Your task to perform on an android device: turn on improve location accuracy Image 0: 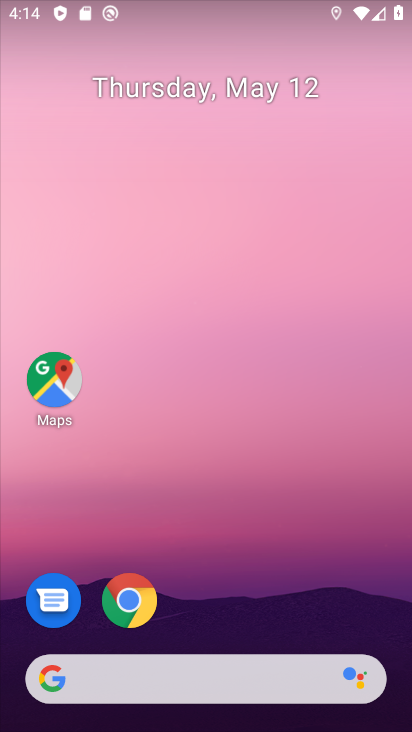
Step 0: drag from (212, 630) to (258, 176)
Your task to perform on an android device: turn on improve location accuracy Image 1: 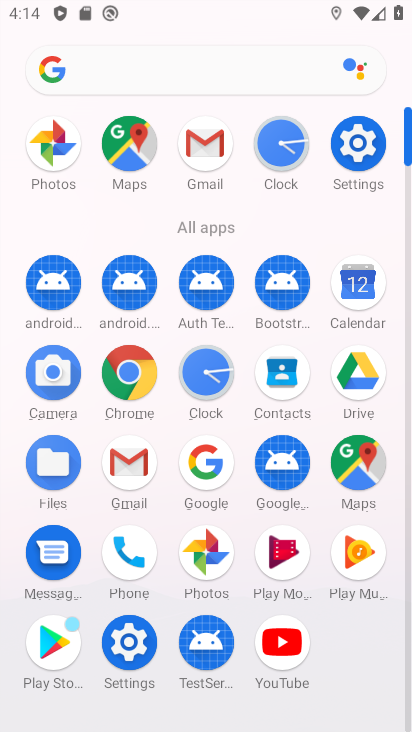
Step 1: click (355, 157)
Your task to perform on an android device: turn on improve location accuracy Image 2: 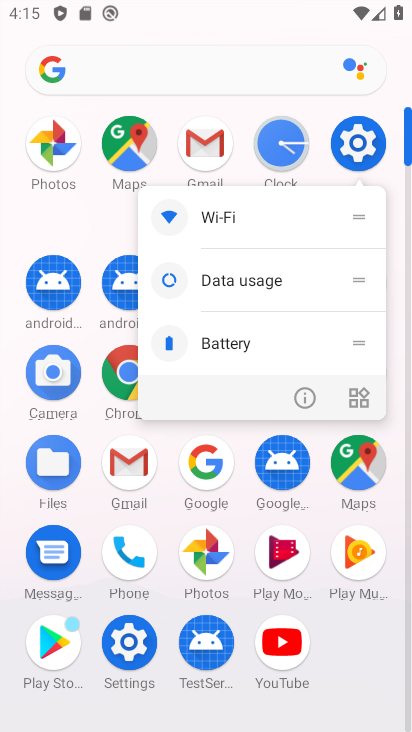
Step 2: click (301, 402)
Your task to perform on an android device: turn on improve location accuracy Image 3: 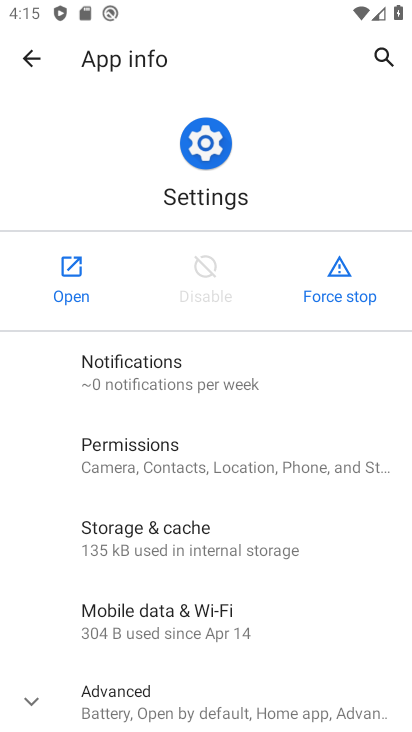
Step 3: click (74, 288)
Your task to perform on an android device: turn on improve location accuracy Image 4: 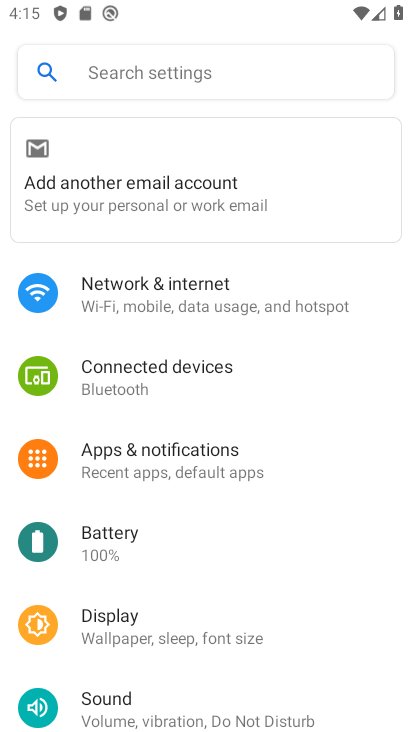
Step 4: drag from (199, 622) to (276, 139)
Your task to perform on an android device: turn on improve location accuracy Image 5: 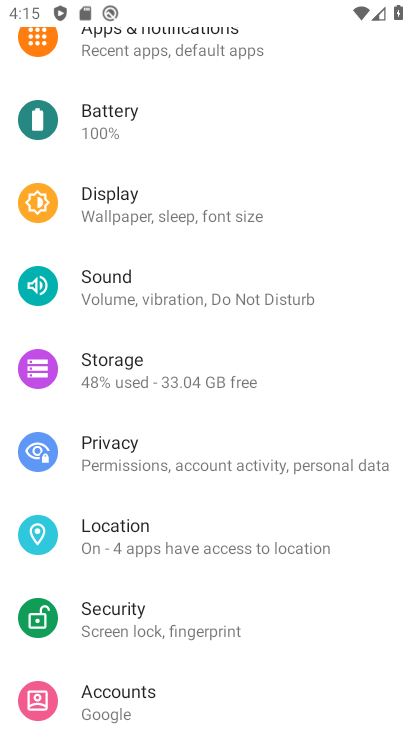
Step 5: drag from (225, 682) to (288, 225)
Your task to perform on an android device: turn on improve location accuracy Image 6: 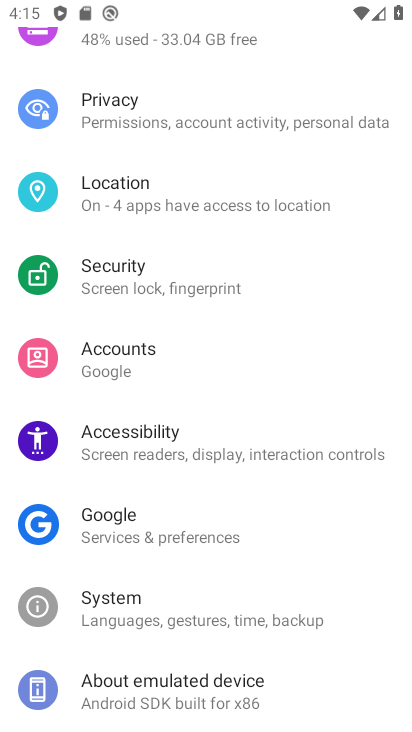
Step 6: click (170, 195)
Your task to perform on an android device: turn on improve location accuracy Image 7: 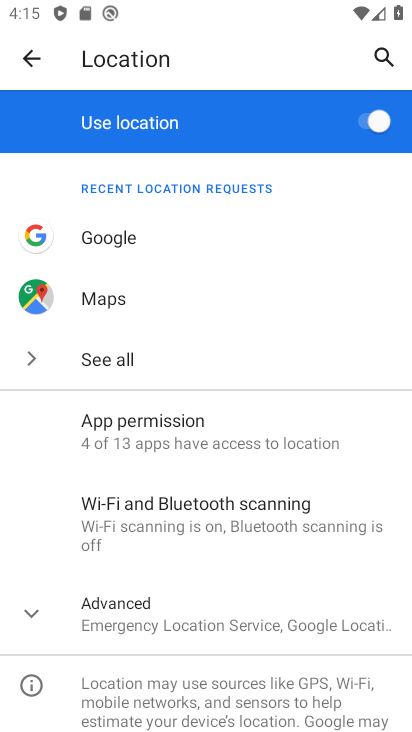
Step 7: click (141, 611)
Your task to perform on an android device: turn on improve location accuracy Image 8: 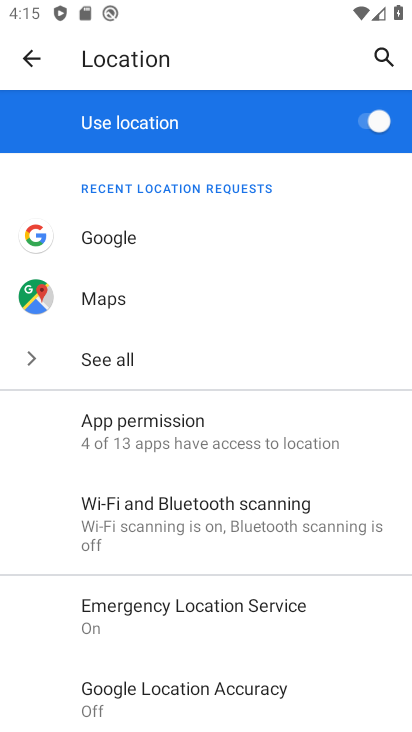
Step 8: drag from (214, 597) to (291, 274)
Your task to perform on an android device: turn on improve location accuracy Image 9: 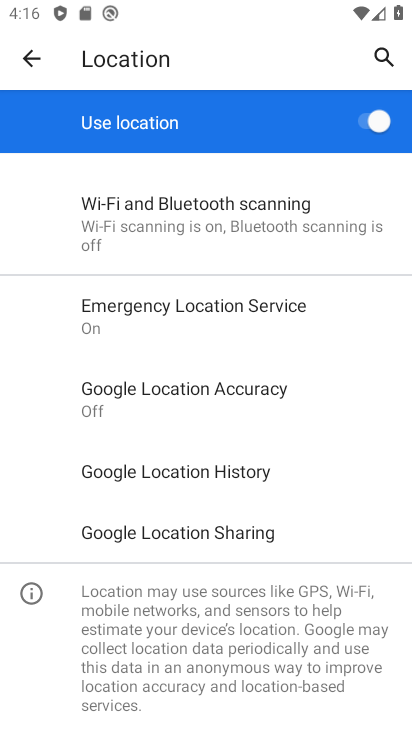
Step 9: click (214, 404)
Your task to perform on an android device: turn on improve location accuracy Image 10: 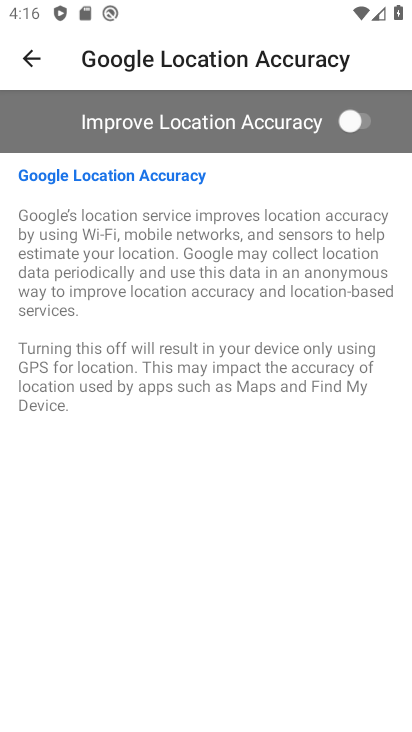
Step 10: click (351, 129)
Your task to perform on an android device: turn on improve location accuracy Image 11: 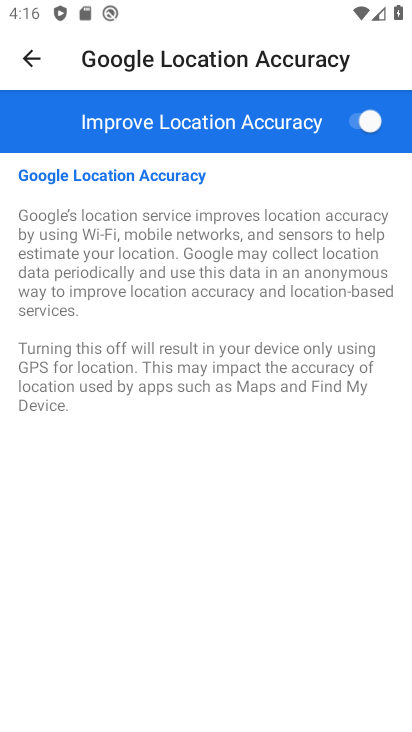
Step 11: task complete